Your task to perform on an android device: delete a single message in the gmail app Image 0: 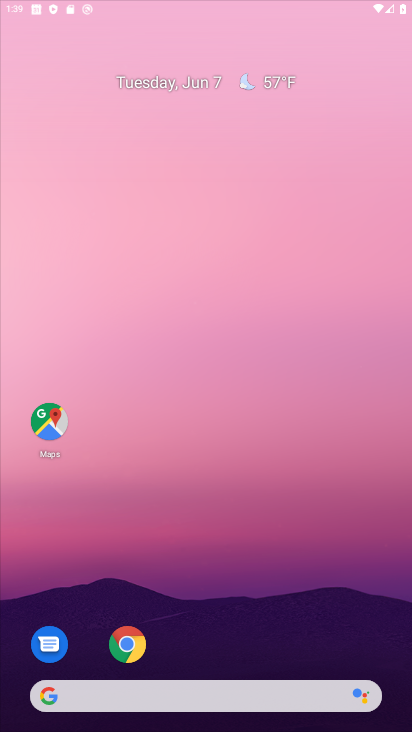
Step 0: click (108, 58)
Your task to perform on an android device: delete a single message in the gmail app Image 1: 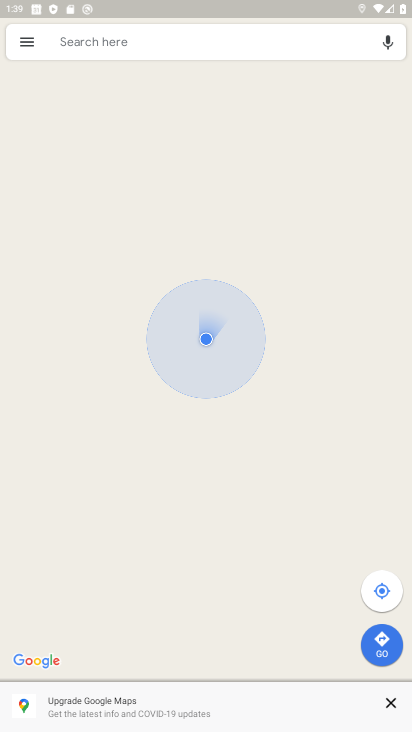
Step 1: press back button
Your task to perform on an android device: delete a single message in the gmail app Image 2: 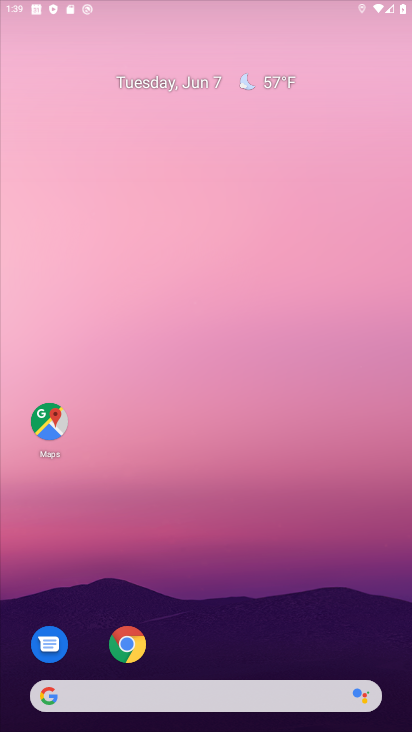
Step 2: drag from (24, 194) to (362, 349)
Your task to perform on an android device: delete a single message in the gmail app Image 3: 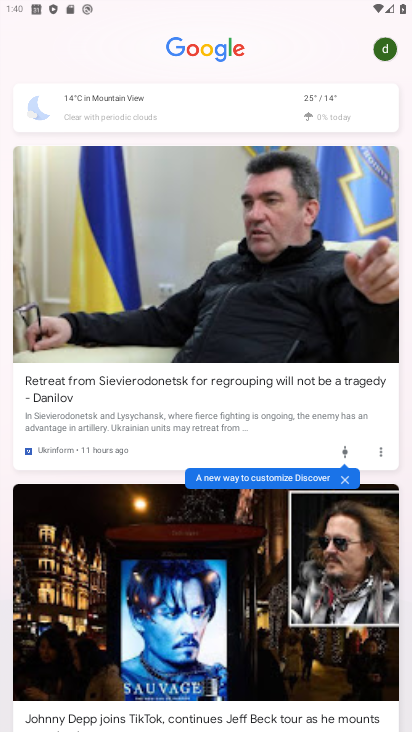
Step 3: press back button
Your task to perform on an android device: delete a single message in the gmail app Image 4: 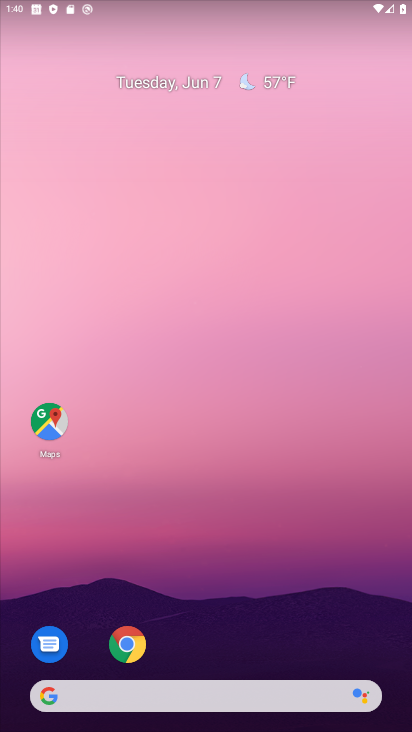
Step 4: drag from (177, 529) to (88, 0)
Your task to perform on an android device: delete a single message in the gmail app Image 5: 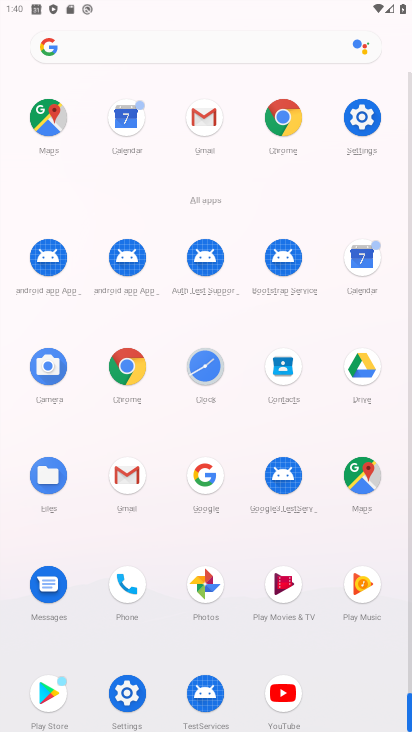
Step 5: click (116, 470)
Your task to perform on an android device: delete a single message in the gmail app Image 6: 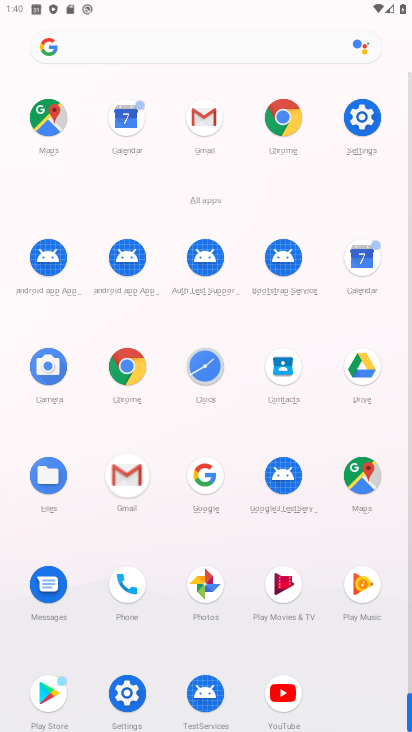
Step 6: click (120, 474)
Your task to perform on an android device: delete a single message in the gmail app Image 7: 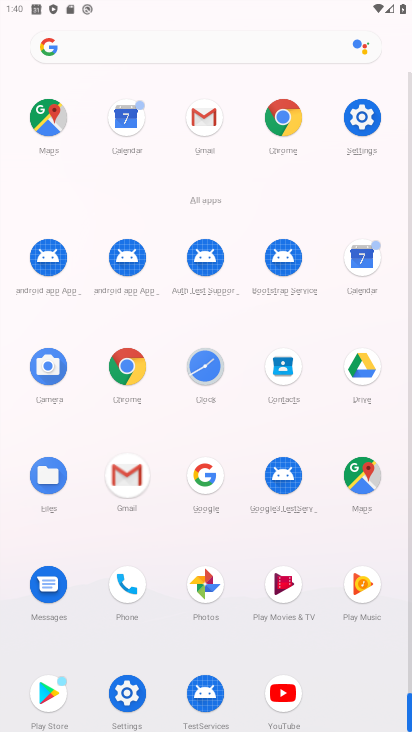
Step 7: click (122, 478)
Your task to perform on an android device: delete a single message in the gmail app Image 8: 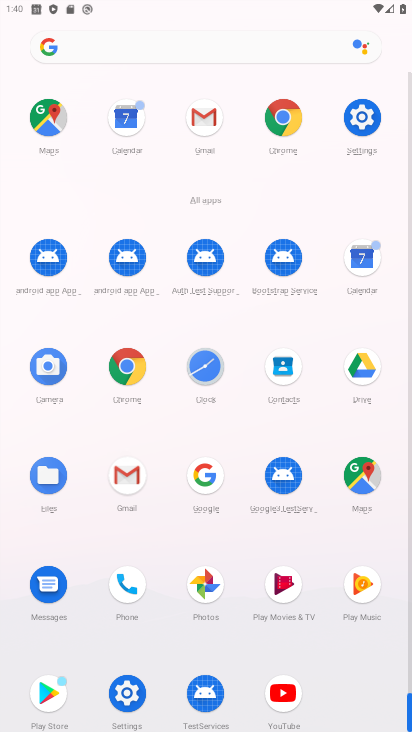
Step 8: click (122, 478)
Your task to perform on an android device: delete a single message in the gmail app Image 9: 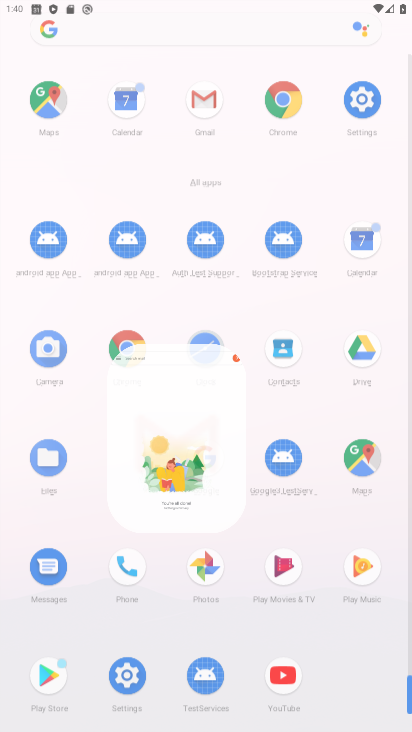
Step 9: click (121, 479)
Your task to perform on an android device: delete a single message in the gmail app Image 10: 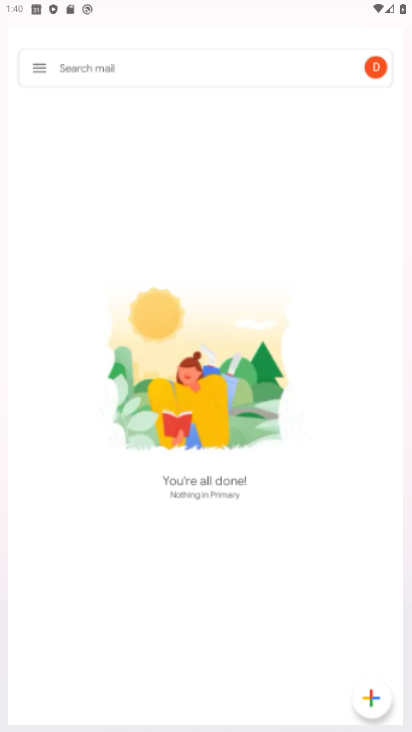
Step 10: click (120, 479)
Your task to perform on an android device: delete a single message in the gmail app Image 11: 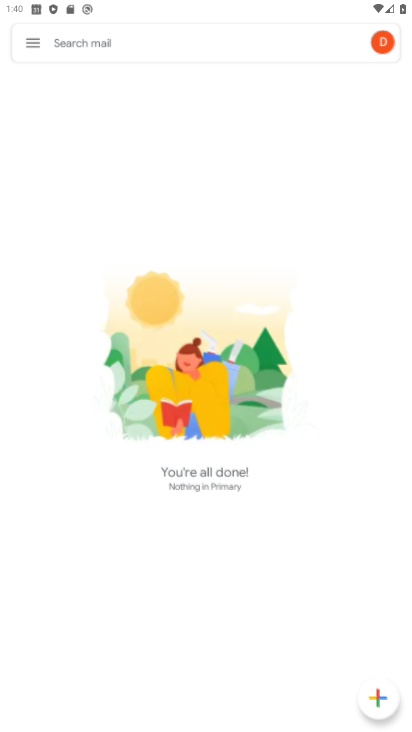
Step 11: click (117, 479)
Your task to perform on an android device: delete a single message in the gmail app Image 12: 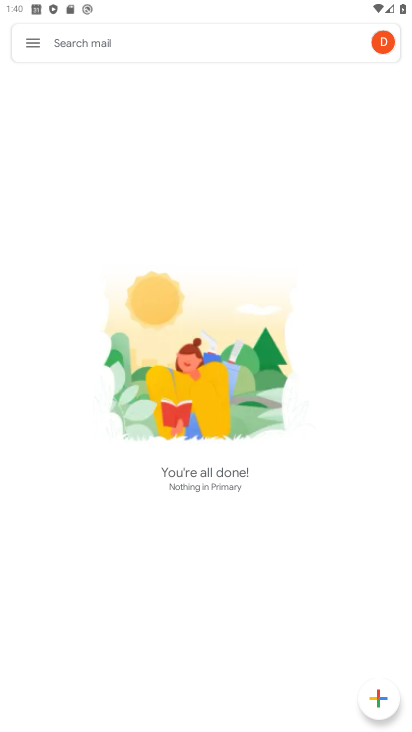
Step 12: click (18, 48)
Your task to perform on an android device: delete a single message in the gmail app Image 13: 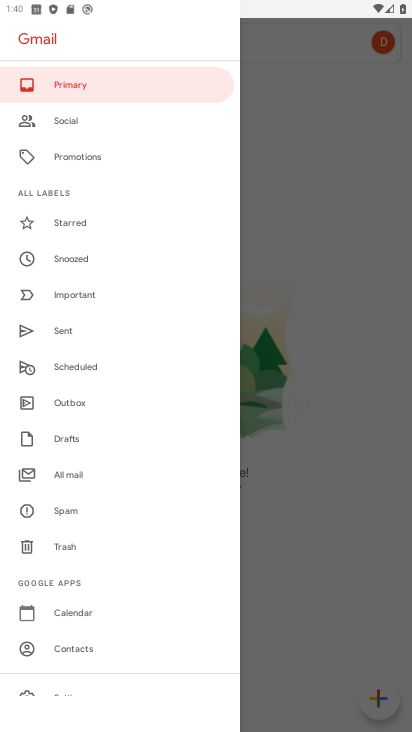
Step 13: click (70, 474)
Your task to perform on an android device: delete a single message in the gmail app Image 14: 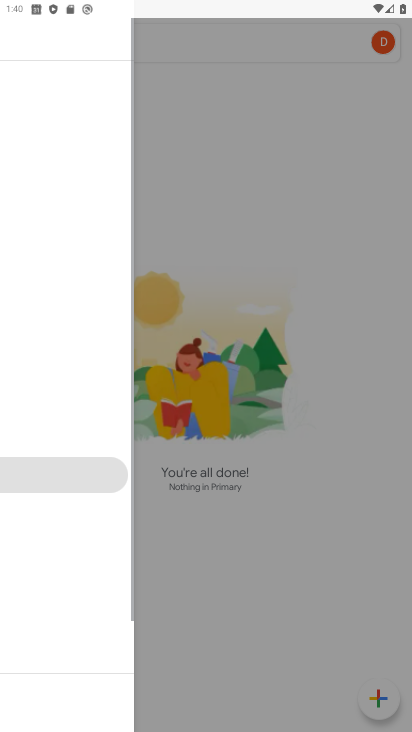
Step 14: click (70, 474)
Your task to perform on an android device: delete a single message in the gmail app Image 15: 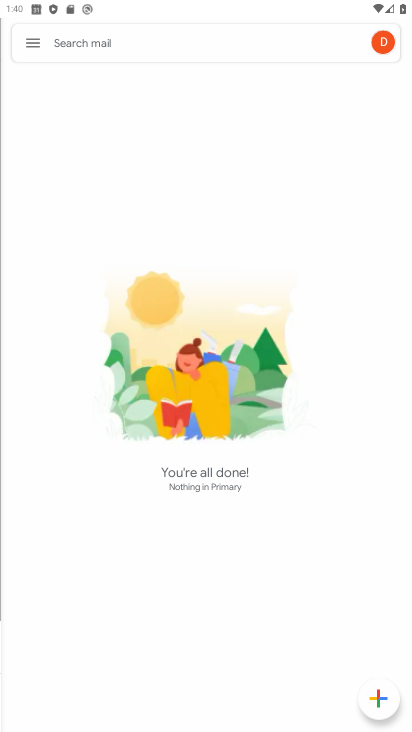
Step 15: click (70, 474)
Your task to perform on an android device: delete a single message in the gmail app Image 16: 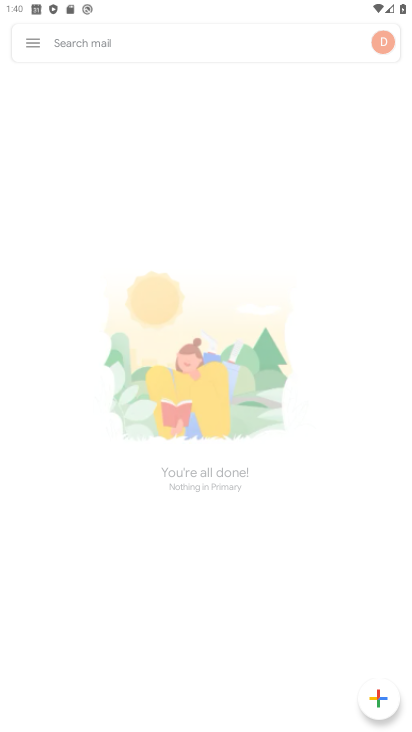
Step 16: click (70, 474)
Your task to perform on an android device: delete a single message in the gmail app Image 17: 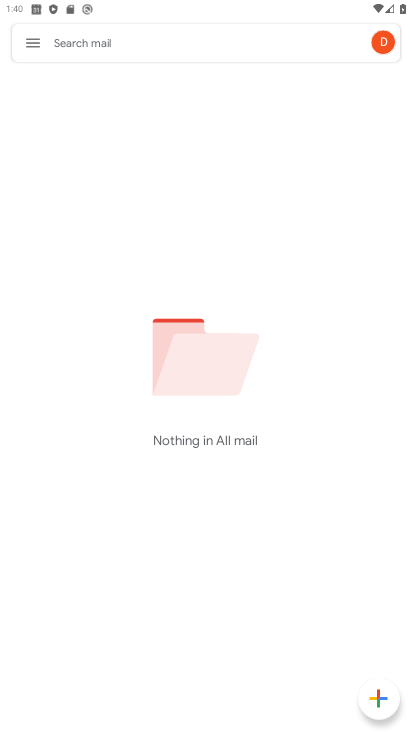
Step 17: task complete